Your task to perform on an android device: See recent photos Image 0: 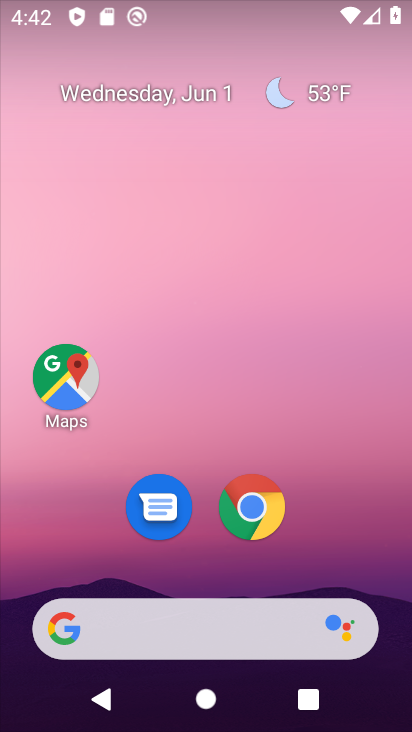
Step 0: drag from (362, 527) to (312, 28)
Your task to perform on an android device: See recent photos Image 1: 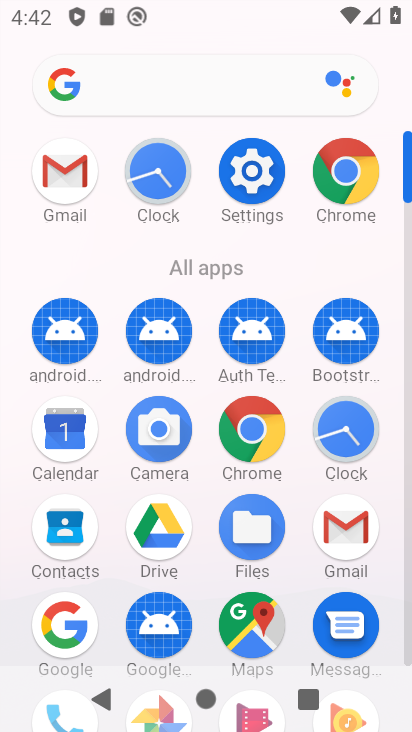
Step 1: drag from (398, 529) to (364, 104)
Your task to perform on an android device: See recent photos Image 2: 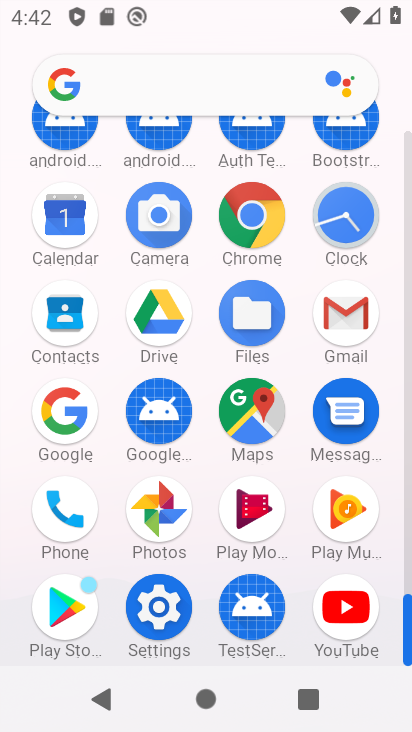
Step 2: click (169, 509)
Your task to perform on an android device: See recent photos Image 3: 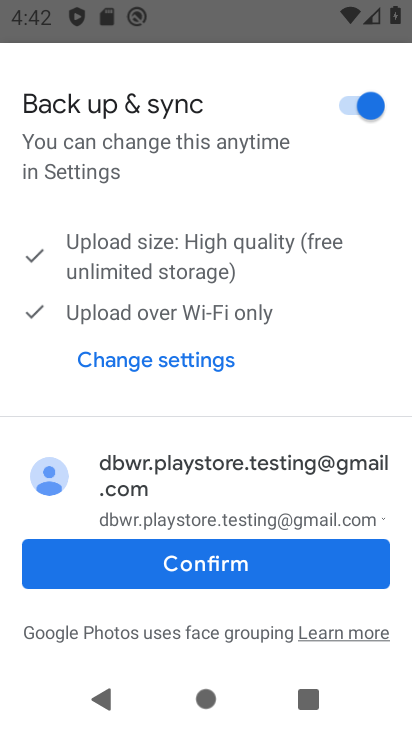
Step 3: click (220, 574)
Your task to perform on an android device: See recent photos Image 4: 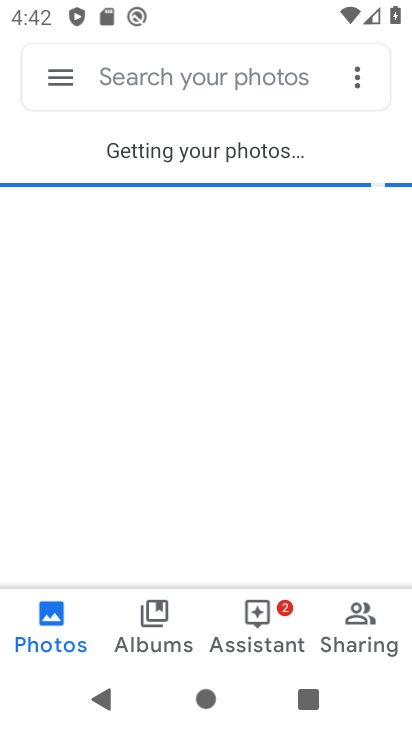
Step 4: click (190, 354)
Your task to perform on an android device: See recent photos Image 5: 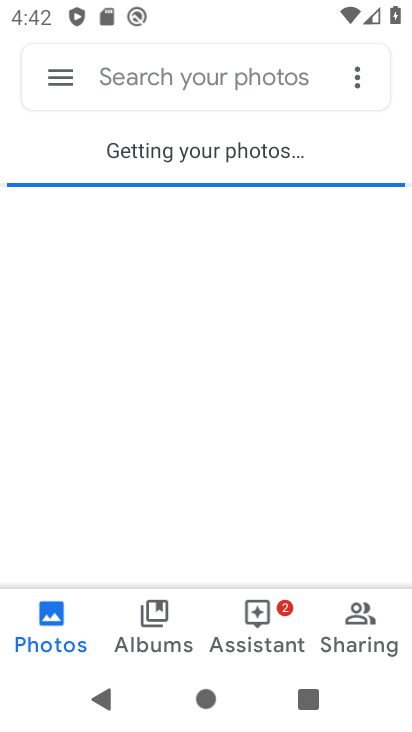
Step 5: task complete